Your task to perform on an android device: check the backup settings in the google photos Image 0: 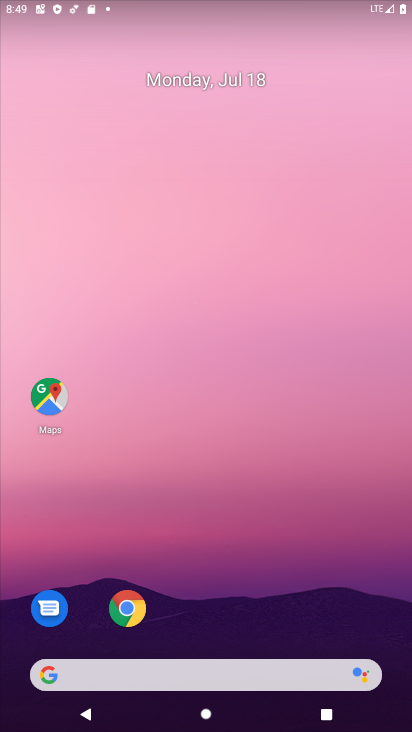
Step 0: drag from (82, 667) to (286, 227)
Your task to perform on an android device: check the backup settings in the google photos Image 1: 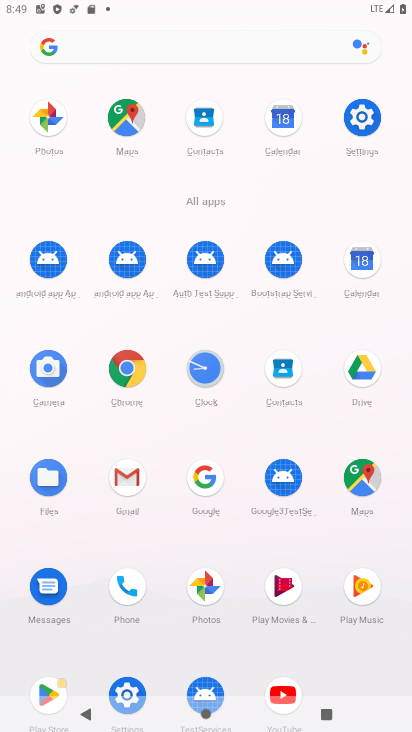
Step 1: click (209, 578)
Your task to perform on an android device: check the backup settings in the google photos Image 2: 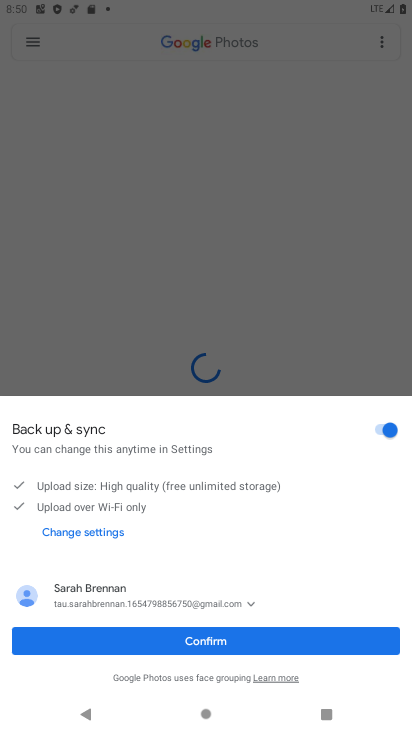
Step 2: click (217, 633)
Your task to perform on an android device: check the backup settings in the google photos Image 3: 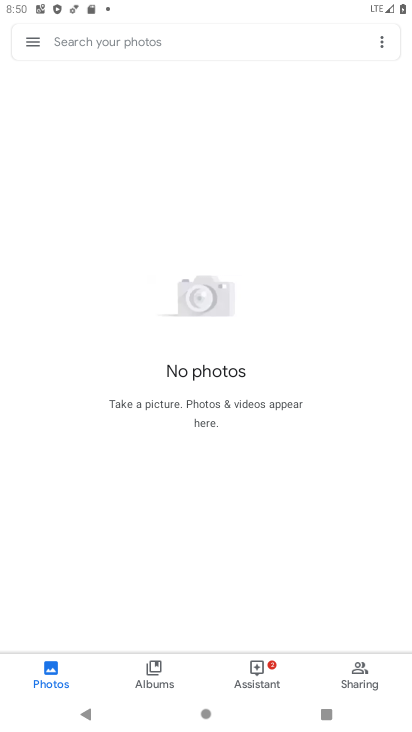
Step 3: click (39, 46)
Your task to perform on an android device: check the backup settings in the google photos Image 4: 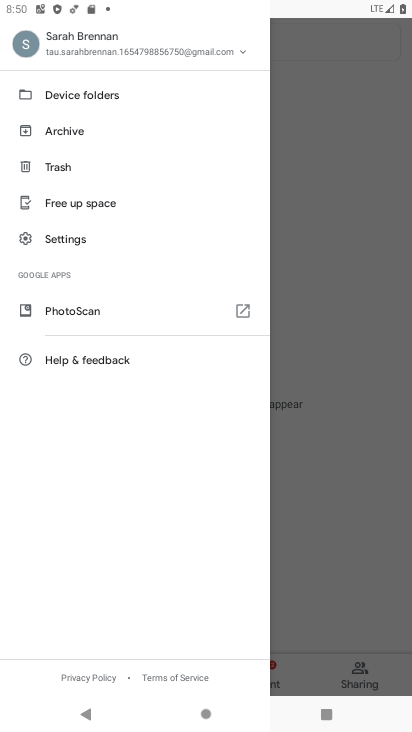
Step 4: click (72, 238)
Your task to perform on an android device: check the backup settings in the google photos Image 5: 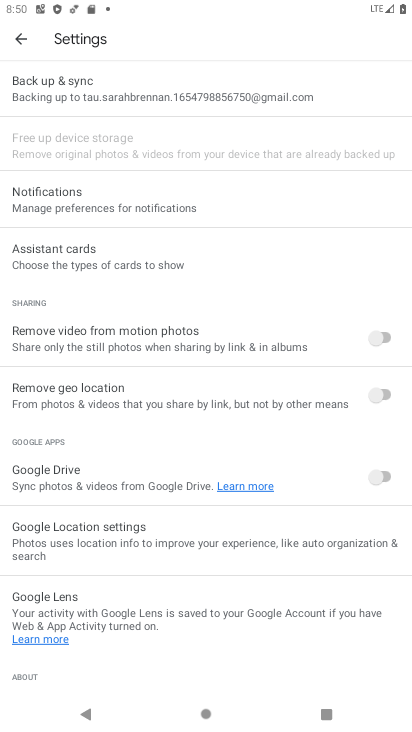
Step 5: click (95, 91)
Your task to perform on an android device: check the backup settings in the google photos Image 6: 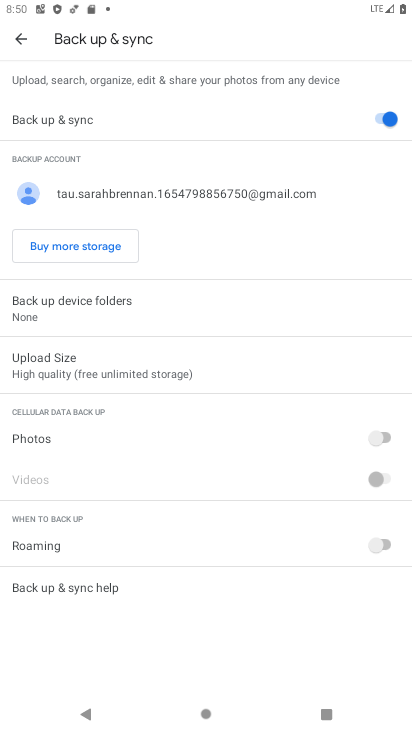
Step 6: task complete